Your task to perform on an android device: stop showing notifications on the lock screen Image 0: 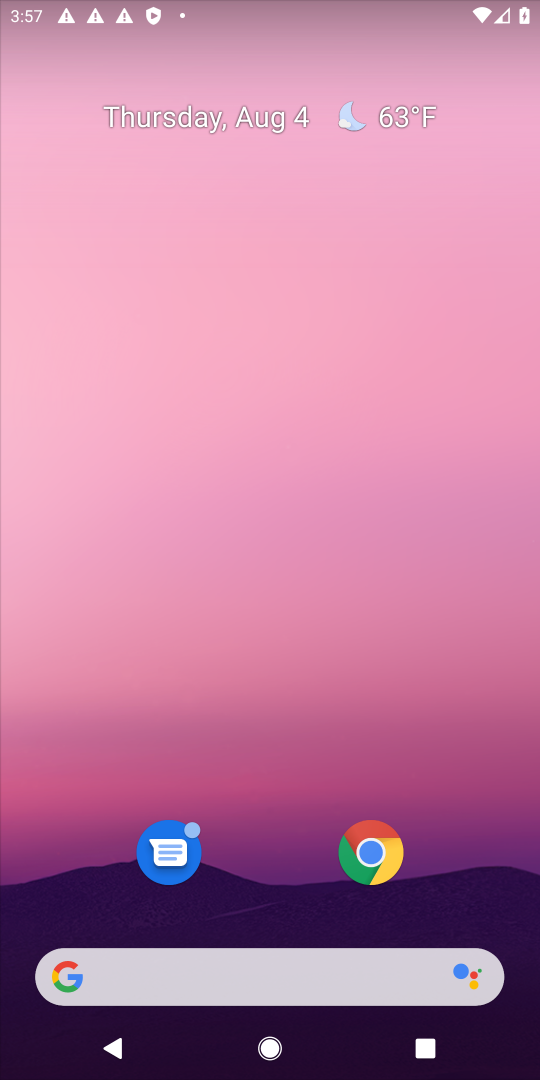
Step 0: drag from (288, 920) to (287, 116)
Your task to perform on an android device: stop showing notifications on the lock screen Image 1: 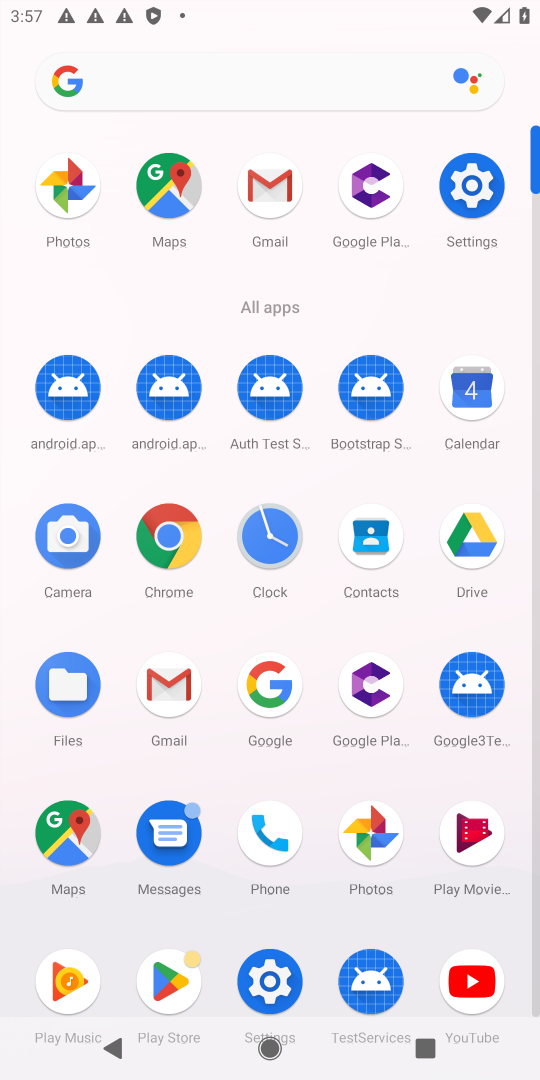
Step 1: click (473, 188)
Your task to perform on an android device: stop showing notifications on the lock screen Image 2: 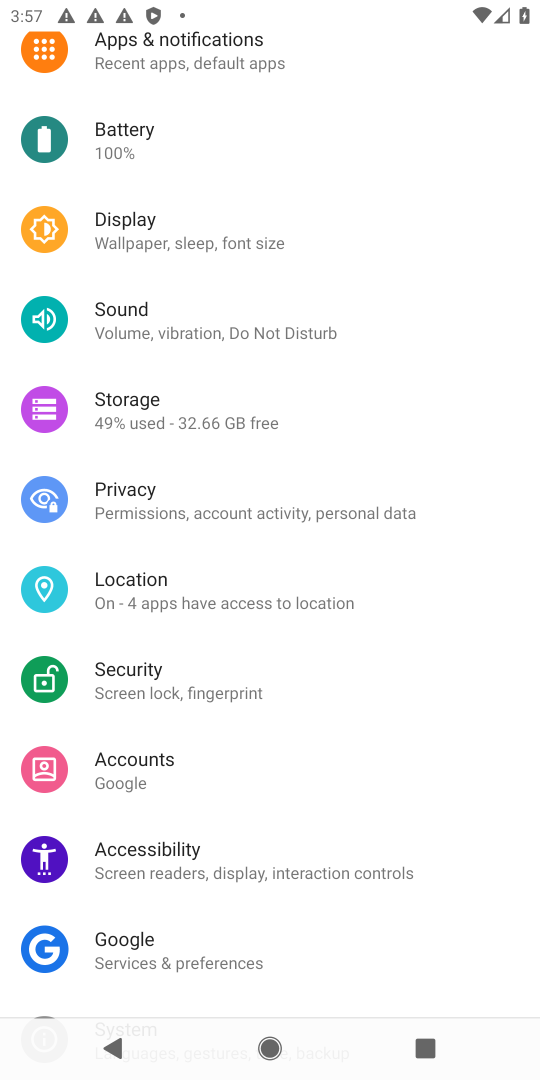
Step 2: drag from (163, 228) to (162, 798)
Your task to perform on an android device: stop showing notifications on the lock screen Image 3: 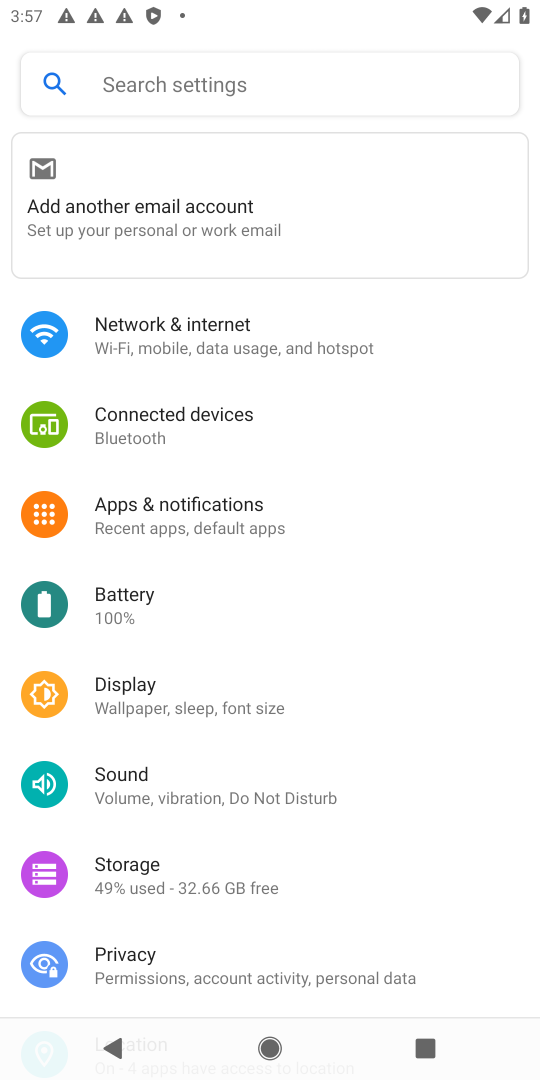
Step 3: click (204, 505)
Your task to perform on an android device: stop showing notifications on the lock screen Image 4: 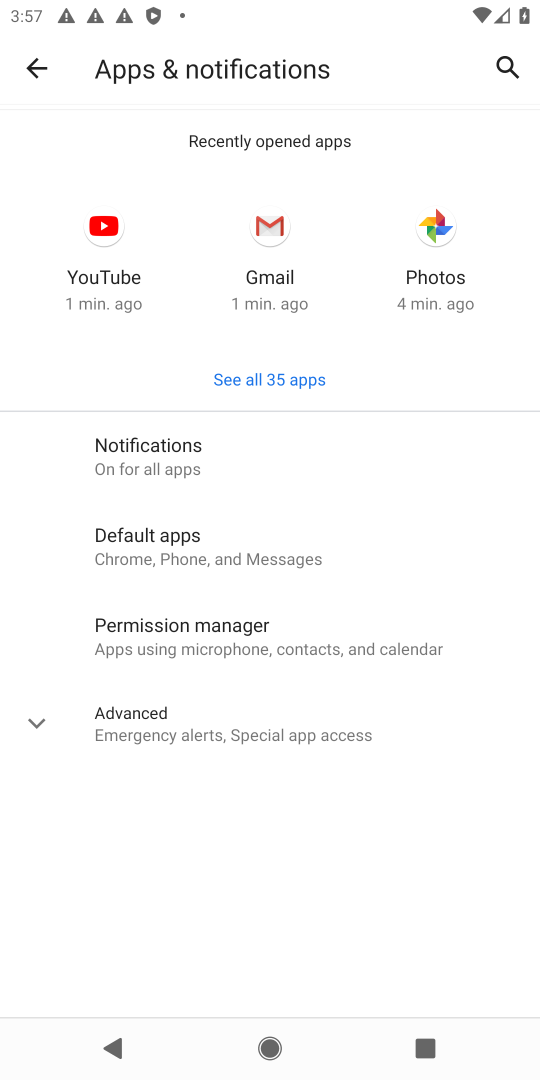
Step 4: click (123, 455)
Your task to perform on an android device: stop showing notifications on the lock screen Image 5: 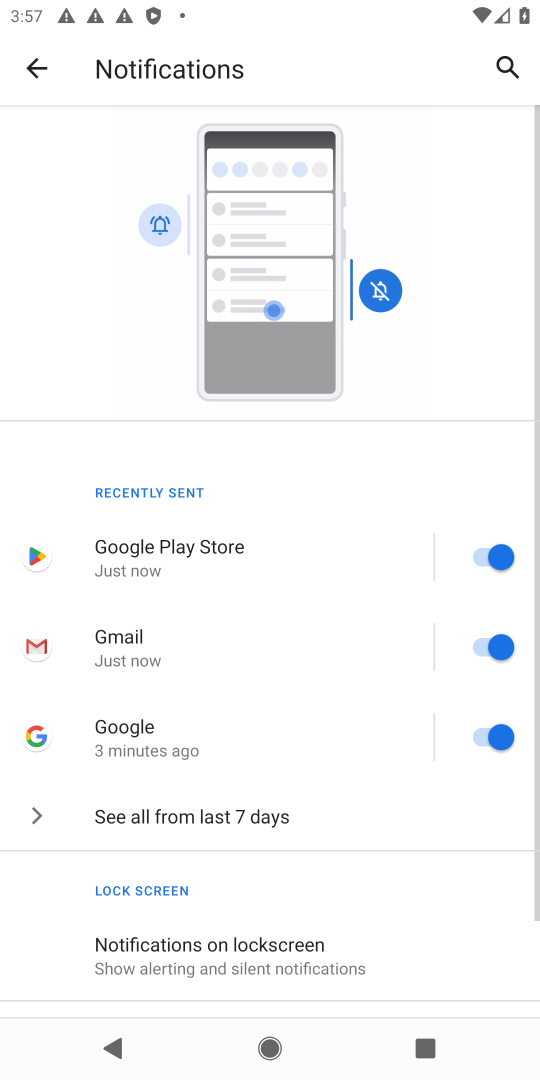
Step 5: drag from (188, 902) to (193, 520)
Your task to perform on an android device: stop showing notifications on the lock screen Image 6: 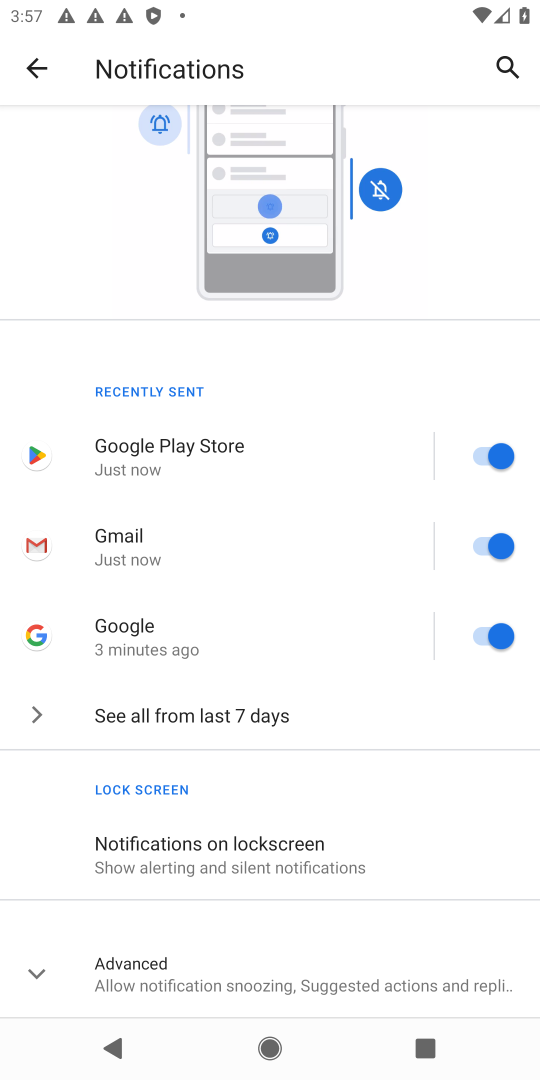
Step 6: click (199, 850)
Your task to perform on an android device: stop showing notifications on the lock screen Image 7: 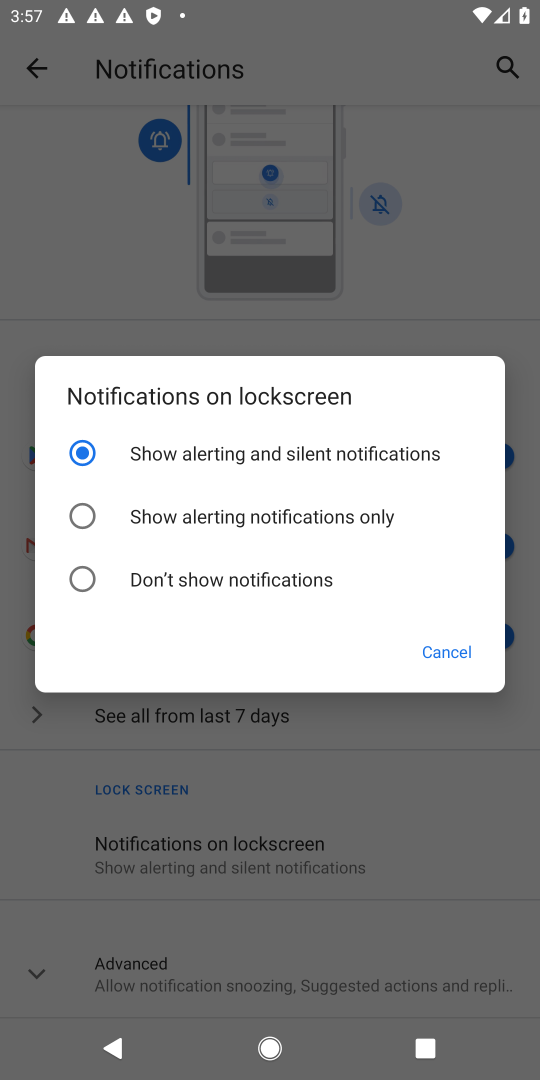
Step 7: click (85, 576)
Your task to perform on an android device: stop showing notifications on the lock screen Image 8: 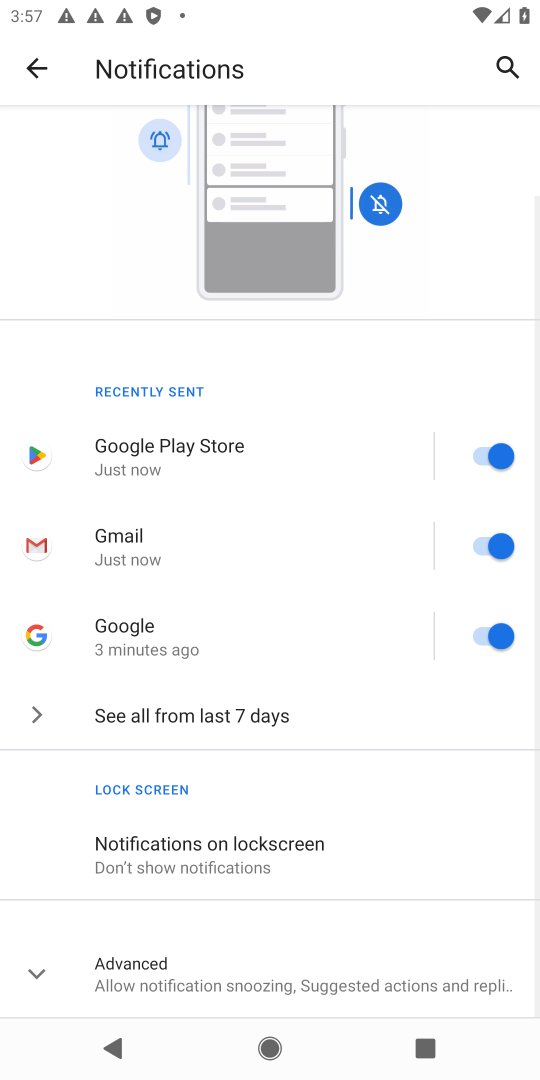
Step 8: task complete